Your task to perform on an android device: Open wifi settings Image 0: 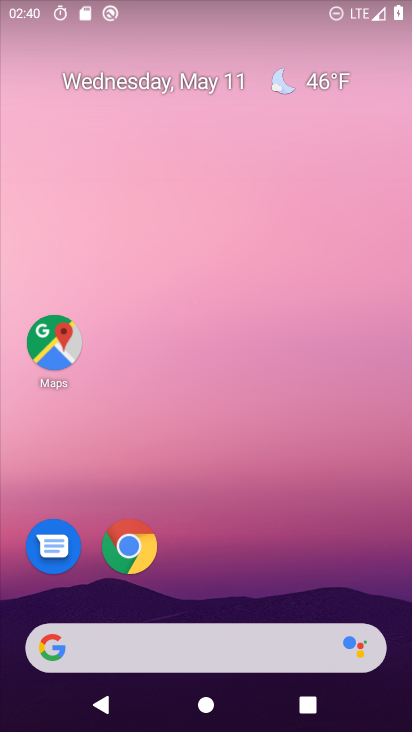
Step 0: drag from (295, 673) to (259, 110)
Your task to perform on an android device: Open wifi settings Image 1: 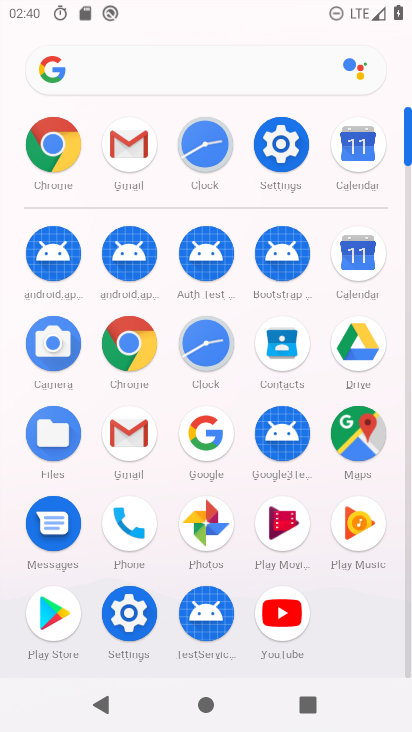
Step 1: click (285, 150)
Your task to perform on an android device: Open wifi settings Image 2: 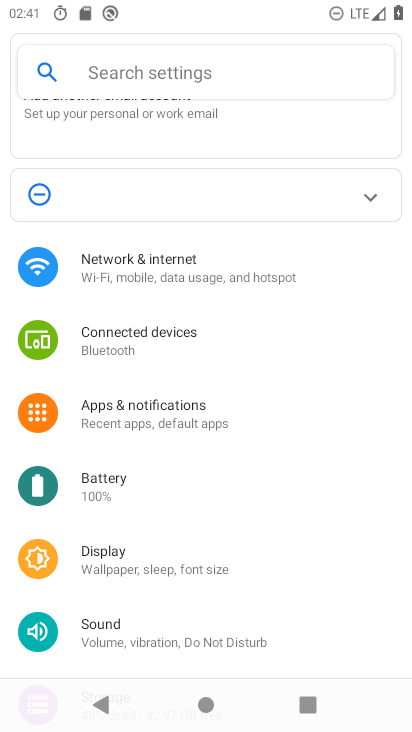
Step 2: click (123, 277)
Your task to perform on an android device: Open wifi settings Image 3: 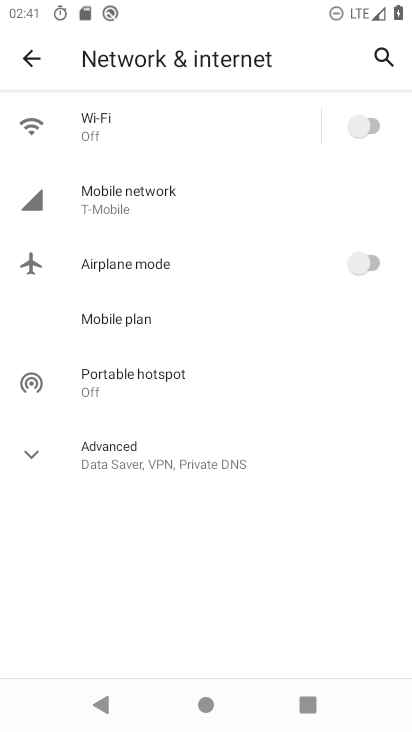
Step 3: click (145, 109)
Your task to perform on an android device: Open wifi settings Image 4: 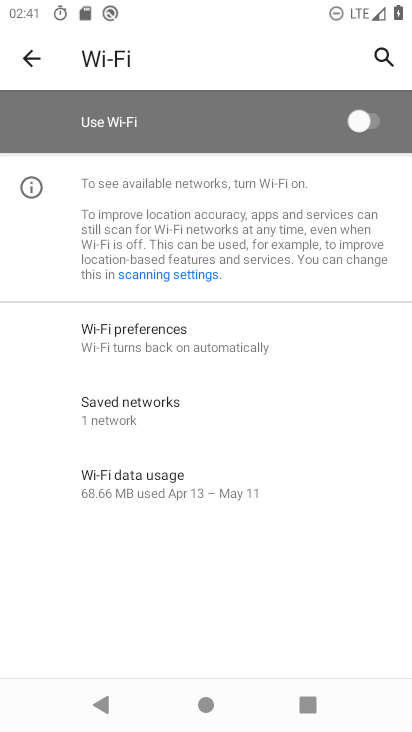
Step 4: task complete